Your task to perform on an android device: Open Google Chrome and click the shortcut for Amazon.com Image 0: 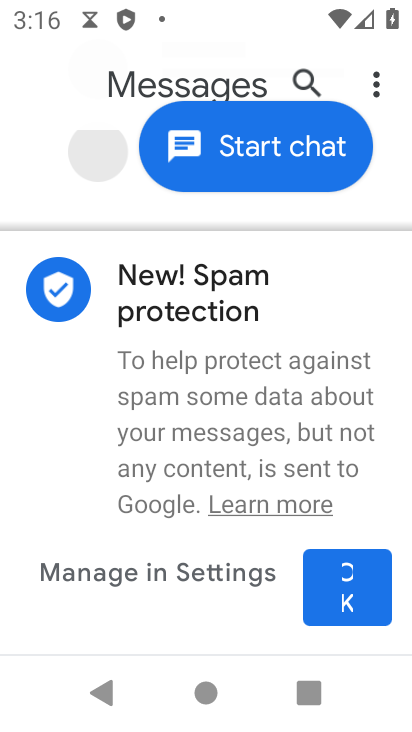
Step 0: press back button
Your task to perform on an android device: Open Google Chrome and click the shortcut for Amazon.com Image 1: 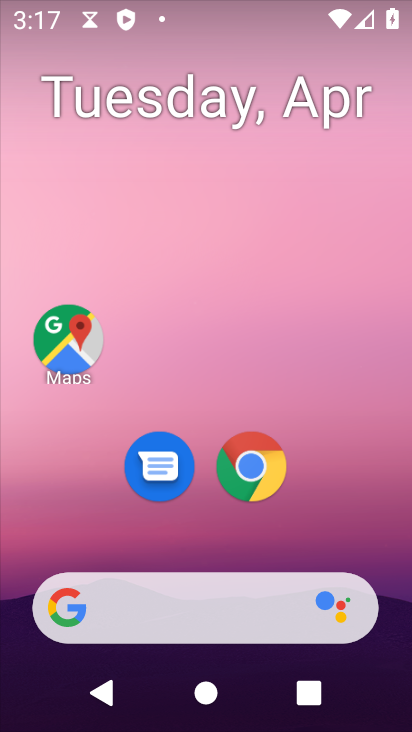
Step 1: drag from (347, 530) to (301, 10)
Your task to perform on an android device: Open Google Chrome and click the shortcut for Amazon.com Image 2: 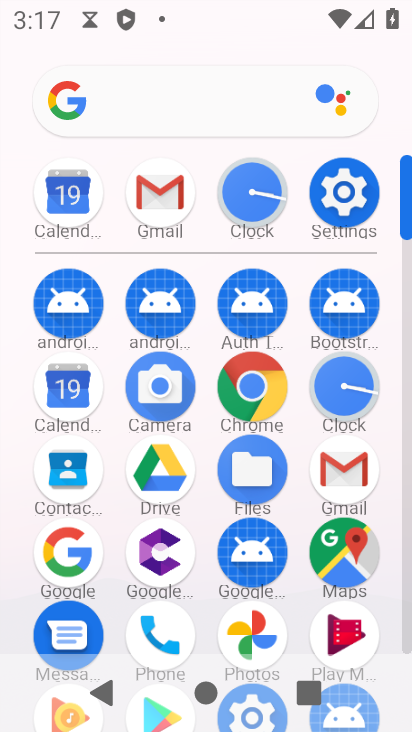
Step 2: drag from (1, 621) to (16, 292)
Your task to perform on an android device: Open Google Chrome and click the shortcut for Amazon.com Image 3: 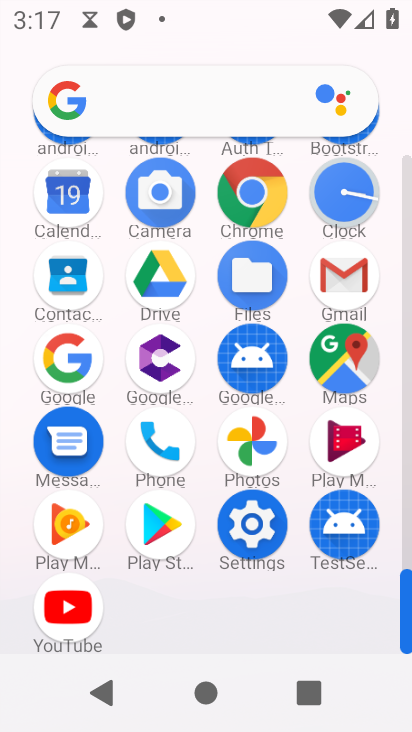
Step 3: click (247, 187)
Your task to perform on an android device: Open Google Chrome and click the shortcut for Amazon.com Image 4: 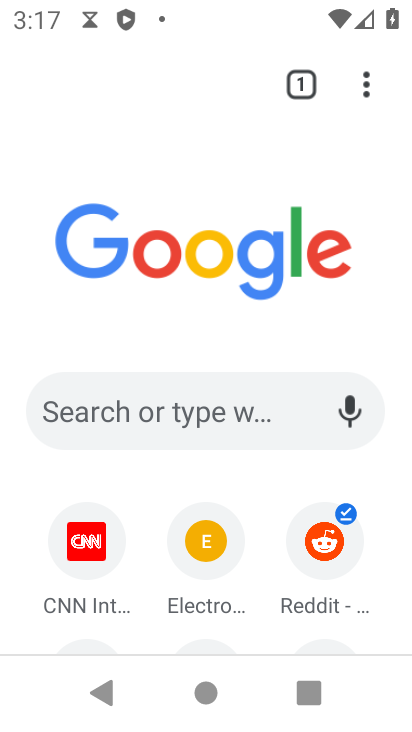
Step 4: drag from (239, 601) to (241, 178)
Your task to perform on an android device: Open Google Chrome and click the shortcut for Amazon.com Image 5: 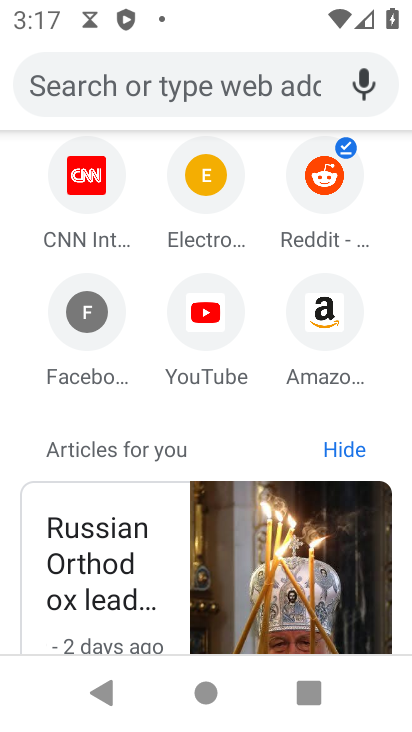
Step 5: click (327, 296)
Your task to perform on an android device: Open Google Chrome and click the shortcut for Amazon.com Image 6: 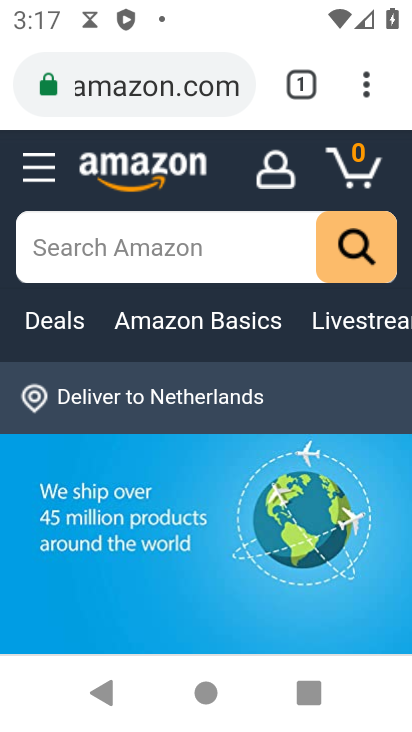
Step 6: drag from (367, 81) to (219, 346)
Your task to perform on an android device: Open Google Chrome and click the shortcut for Amazon.com Image 7: 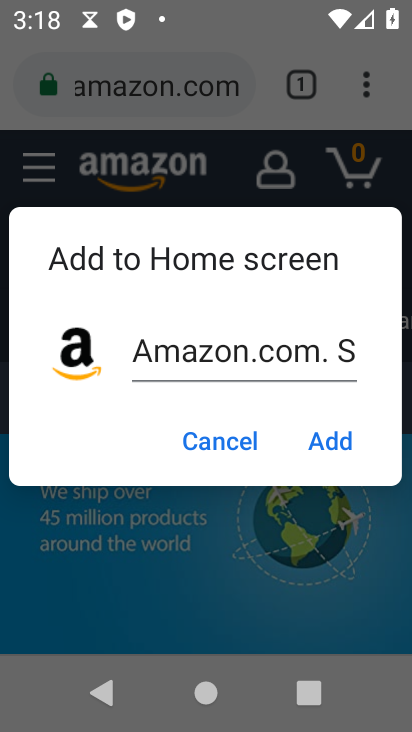
Step 7: click (340, 435)
Your task to perform on an android device: Open Google Chrome and click the shortcut for Amazon.com Image 8: 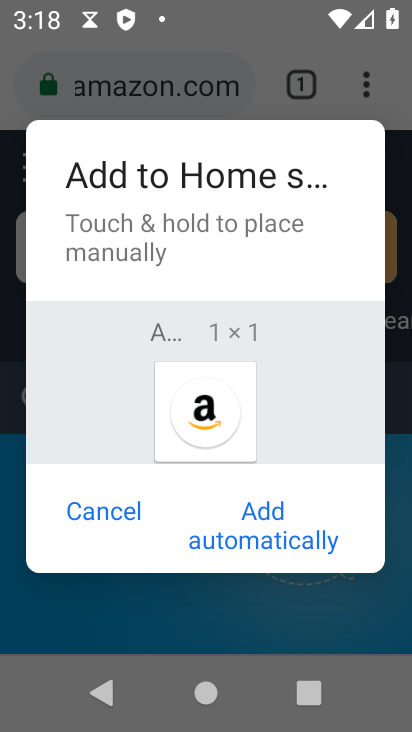
Step 8: click (291, 530)
Your task to perform on an android device: Open Google Chrome and click the shortcut for Amazon.com Image 9: 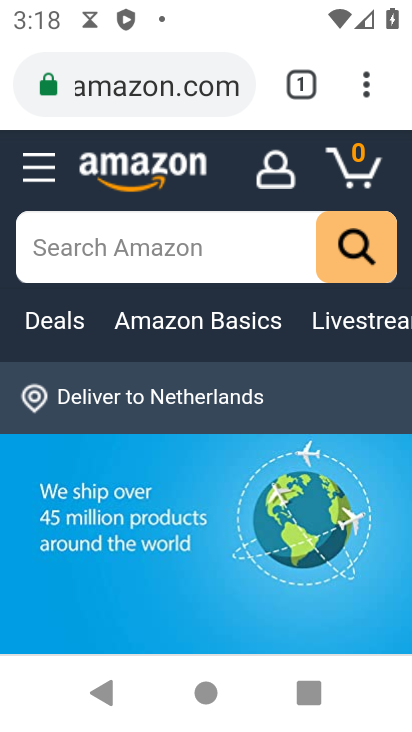
Step 9: task complete